Your task to perform on an android device: open sync settings in chrome Image 0: 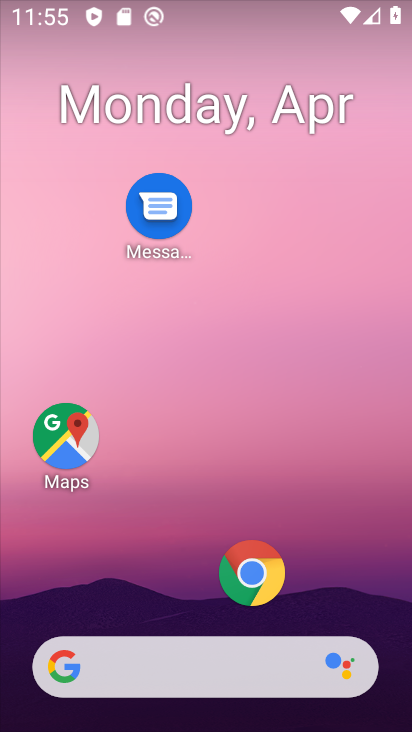
Step 0: drag from (190, 615) to (120, 31)
Your task to perform on an android device: open sync settings in chrome Image 1: 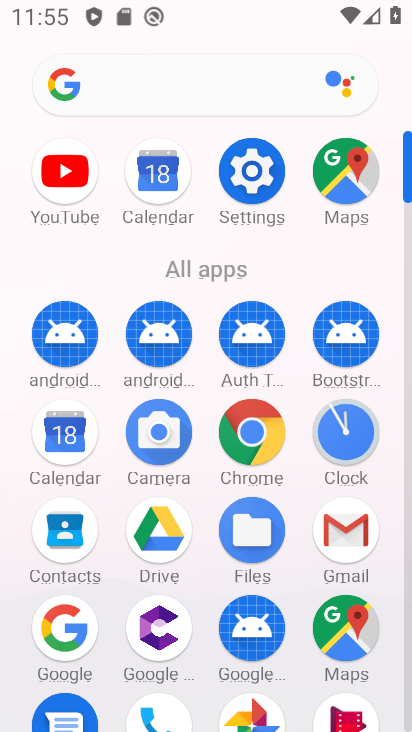
Step 1: click (257, 426)
Your task to perform on an android device: open sync settings in chrome Image 2: 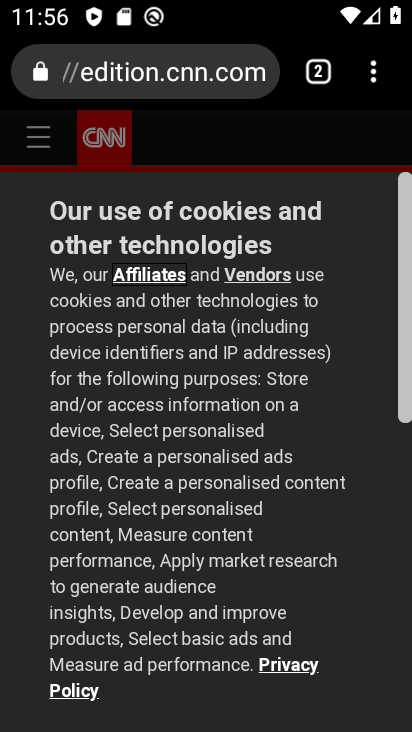
Step 2: click (369, 66)
Your task to perform on an android device: open sync settings in chrome Image 3: 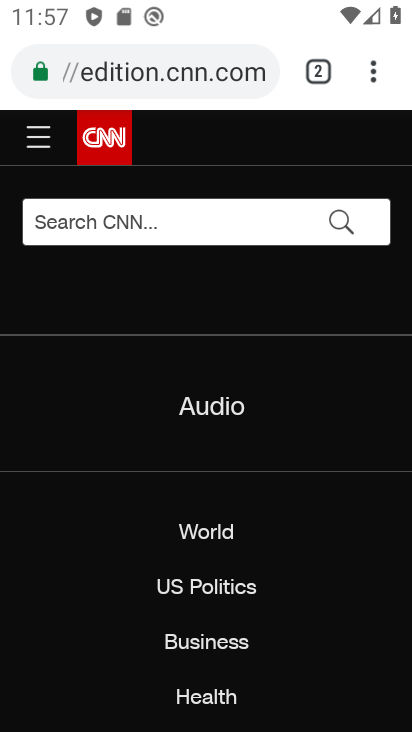
Step 3: click (366, 74)
Your task to perform on an android device: open sync settings in chrome Image 4: 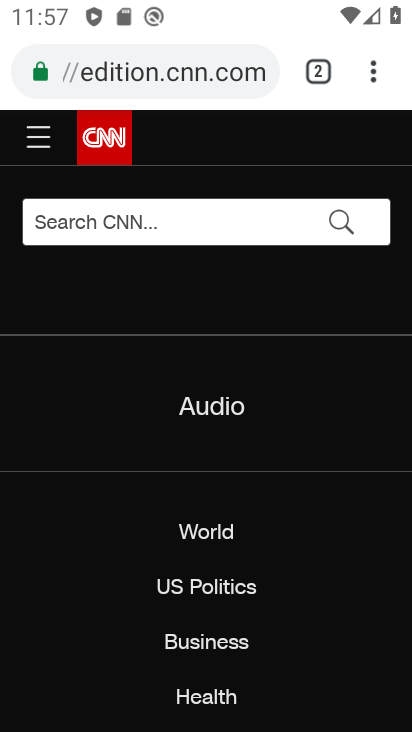
Step 4: click (363, 73)
Your task to perform on an android device: open sync settings in chrome Image 5: 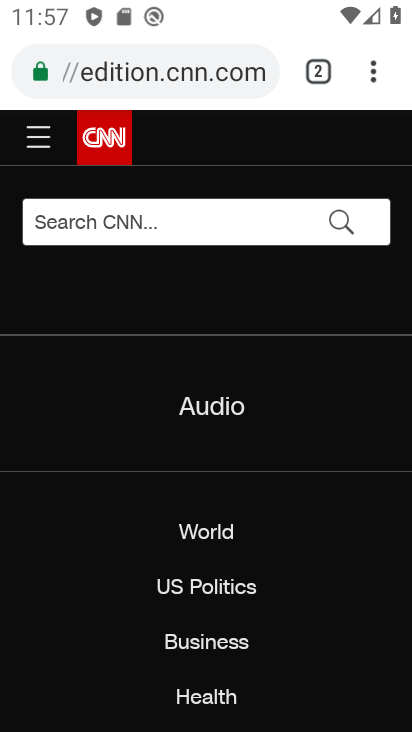
Step 5: click (363, 73)
Your task to perform on an android device: open sync settings in chrome Image 6: 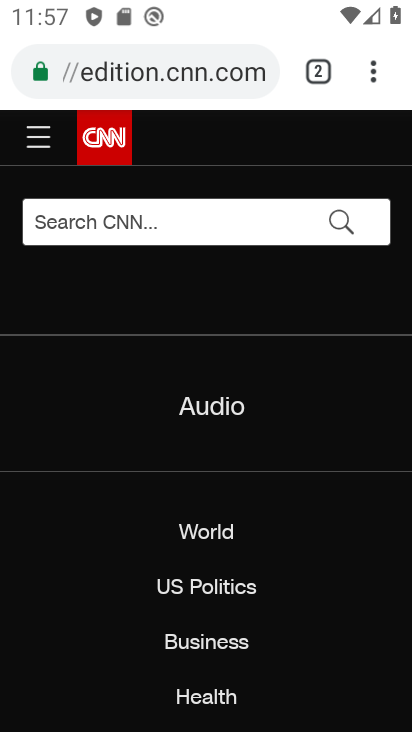
Step 6: click (366, 69)
Your task to perform on an android device: open sync settings in chrome Image 7: 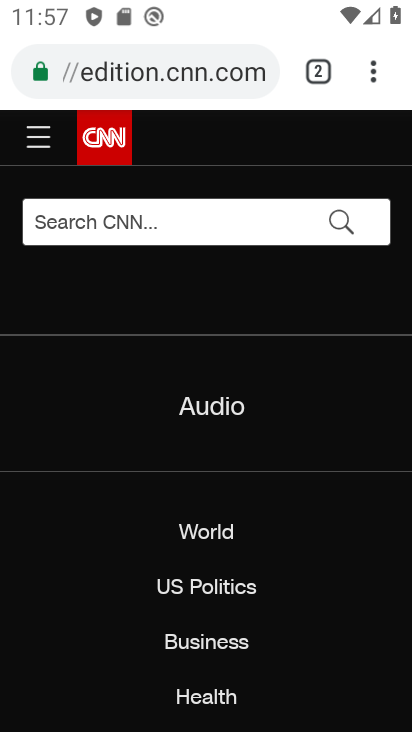
Step 7: click (372, 70)
Your task to perform on an android device: open sync settings in chrome Image 8: 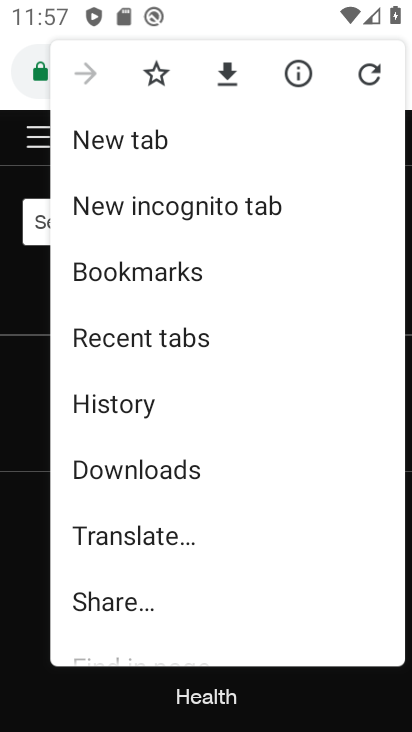
Step 8: drag from (241, 550) to (173, 52)
Your task to perform on an android device: open sync settings in chrome Image 9: 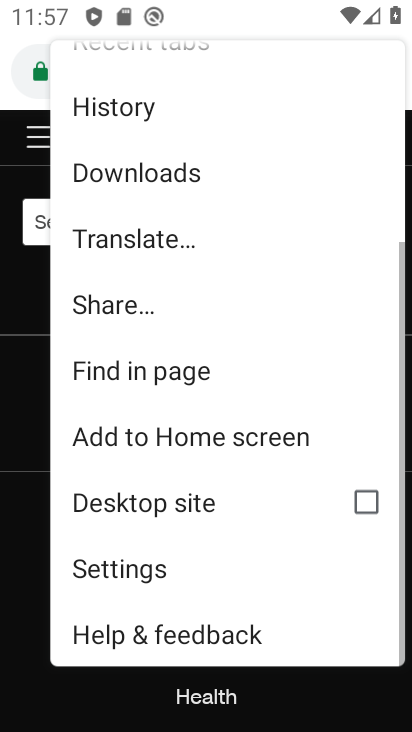
Step 9: click (129, 562)
Your task to perform on an android device: open sync settings in chrome Image 10: 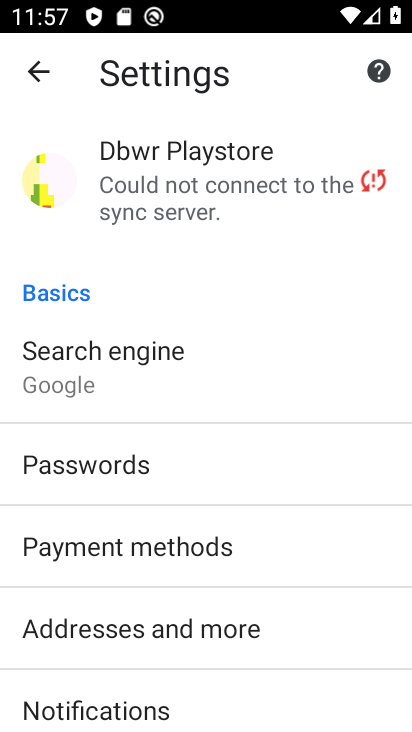
Step 10: drag from (189, 576) to (164, 366)
Your task to perform on an android device: open sync settings in chrome Image 11: 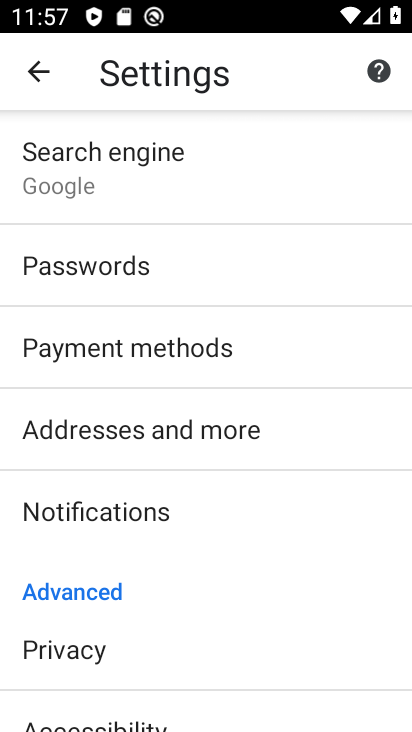
Step 11: drag from (143, 210) to (163, 467)
Your task to perform on an android device: open sync settings in chrome Image 12: 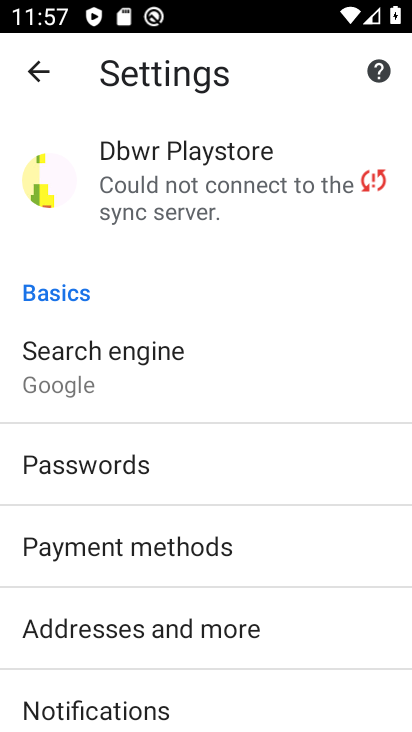
Step 12: click (123, 214)
Your task to perform on an android device: open sync settings in chrome Image 13: 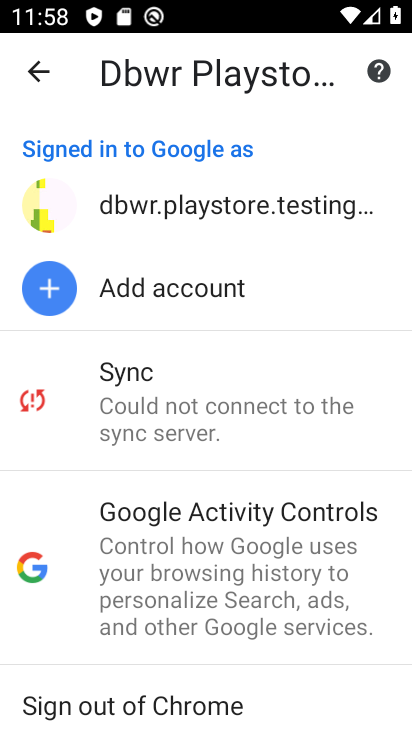
Step 13: task complete